Your task to perform on an android device: Show me popular videos on Youtube Image 0: 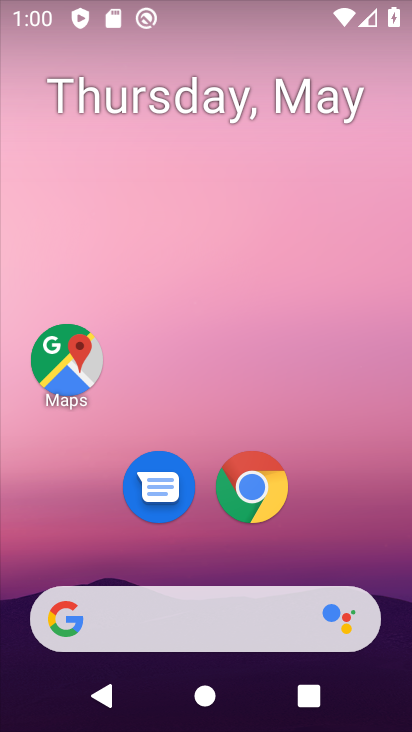
Step 0: drag from (332, 514) to (229, 38)
Your task to perform on an android device: Show me popular videos on Youtube Image 1: 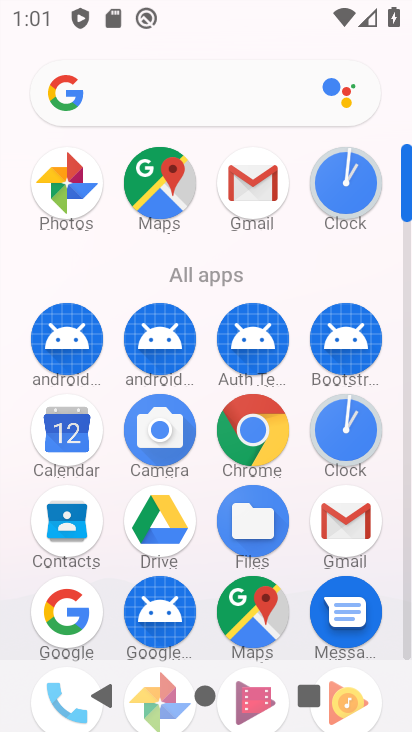
Step 1: drag from (408, 188) to (406, 226)
Your task to perform on an android device: Show me popular videos on Youtube Image 2: 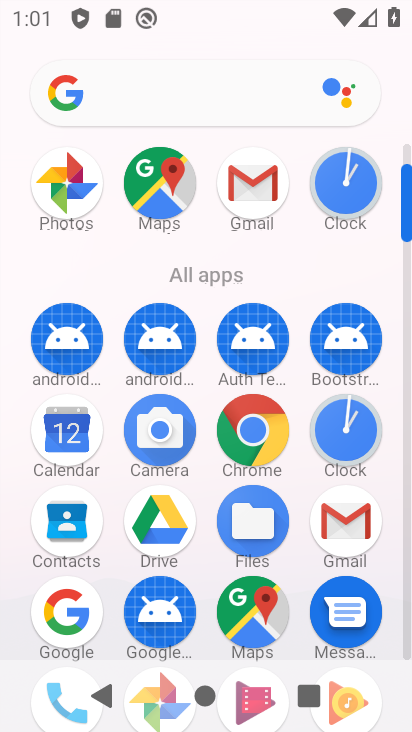
Step 2: drag from (405, 219) to (406, 169)
Your task to perform on an android device: Show me popular videos on Youtube Image 3: 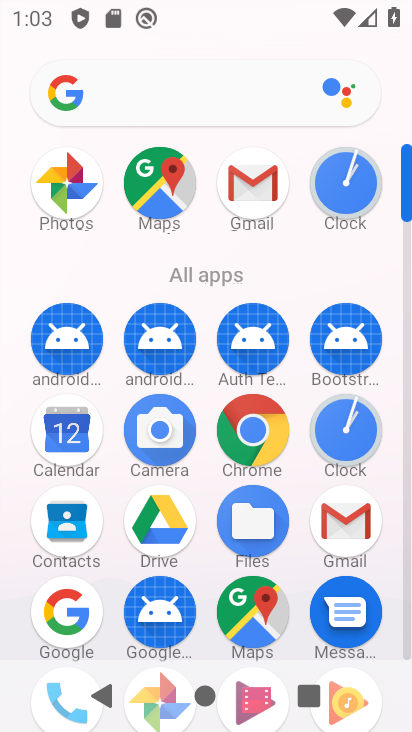
Step 3: drag from (298, 612) to (316, 219)
Your task to perform on an android device: Show me popular videos on Youtube Image 4: 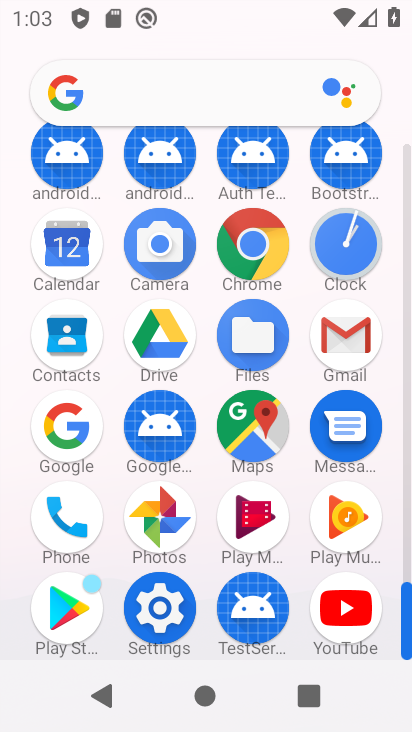
Step 4: click (330, 618)
Your task to perform on an android device: Show me popular videos on Youtube Image 5: 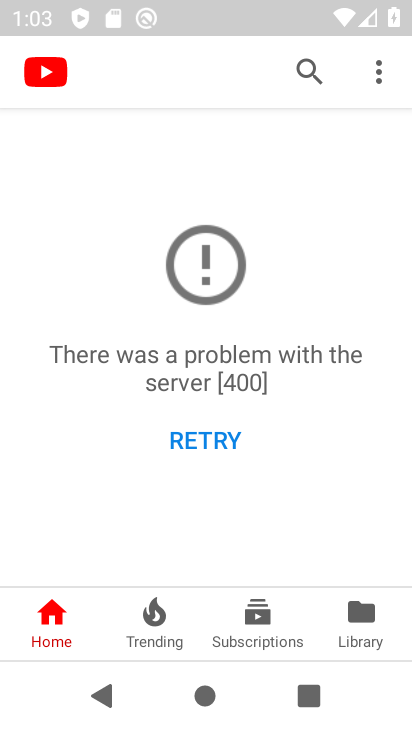
Step 5: task complete